Your task to perform on an android device: Open notification settings Image 0: 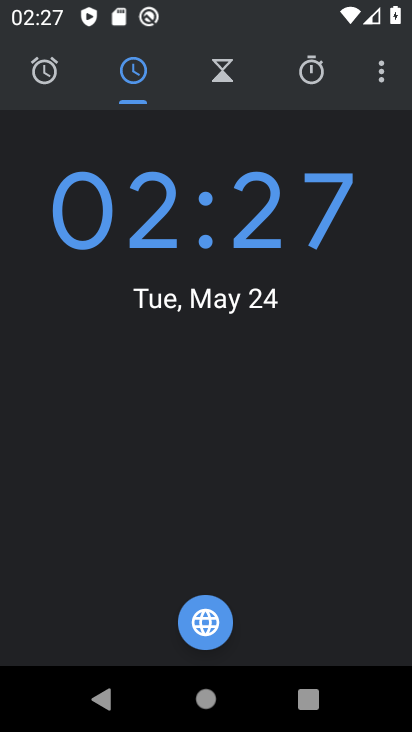
Step 0: press home button
Your task to perform on an android device: Open notification settings Image 1: 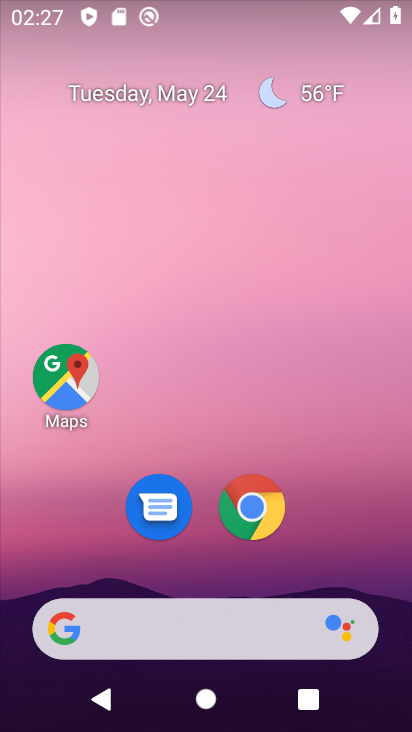
Step 1: drag from (77, 592) to (158, 9)
Your task to perform on an android device: Open notification settings Image 2: 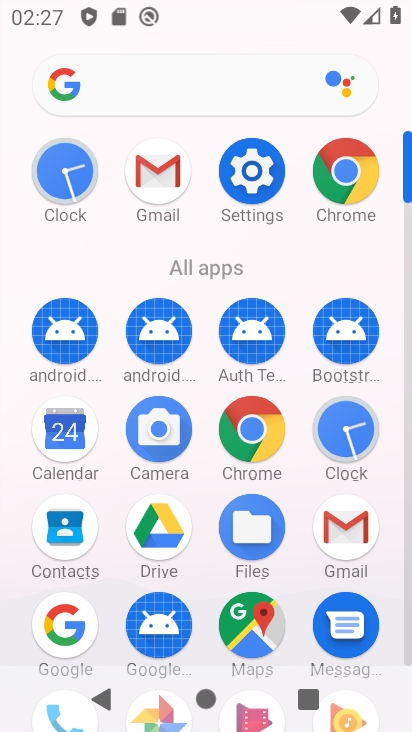
Step 2: drag from (135, 652) to (190, 375)
Your task to perform on an android device: Open notification settings Image 3: 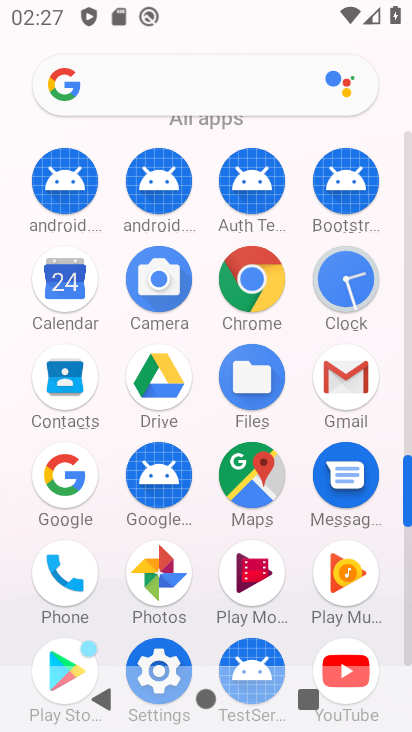
Step 3: click (161, 651)
Your task to perform on an android device: Open notification settings Image 4: 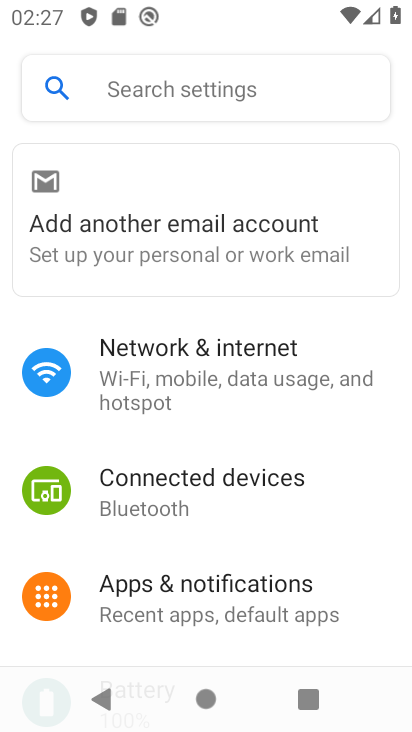
Step 4: drag from (192, 584) to (266, 191)
Your task to perform on an android device: Open notification settings Image 5: 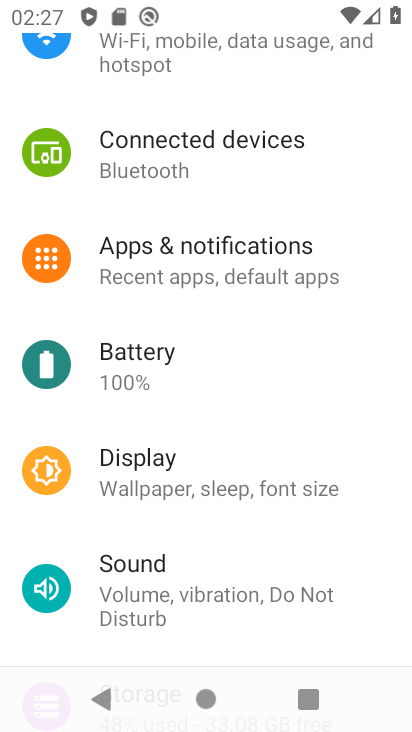
Step 5: click (256, 269)
Your task to perform on an android device: Open notification settings Image 6: 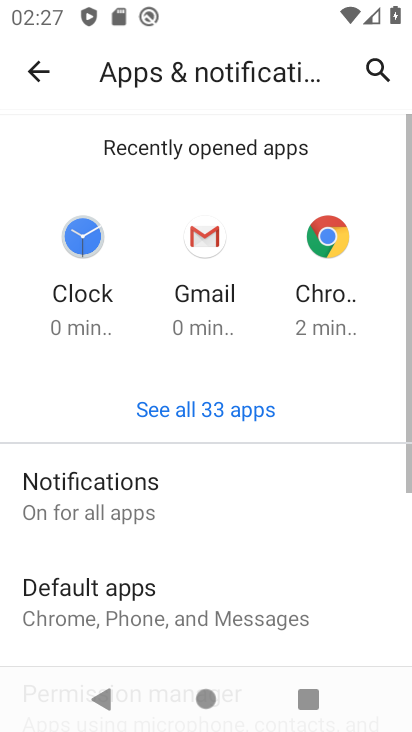
Step 6: click (175, 507)
Your task to perform on an android device: Open notification settings Image 7: 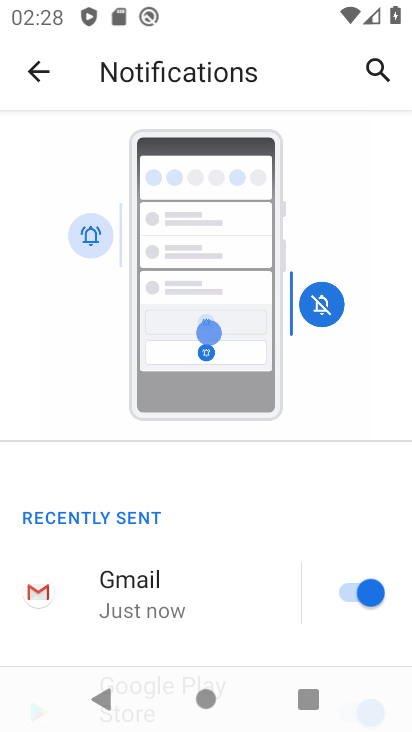
Step 7: task complete